Your task to perform on an android device: Open Google Chrome and open the bookmarks view Image 0: 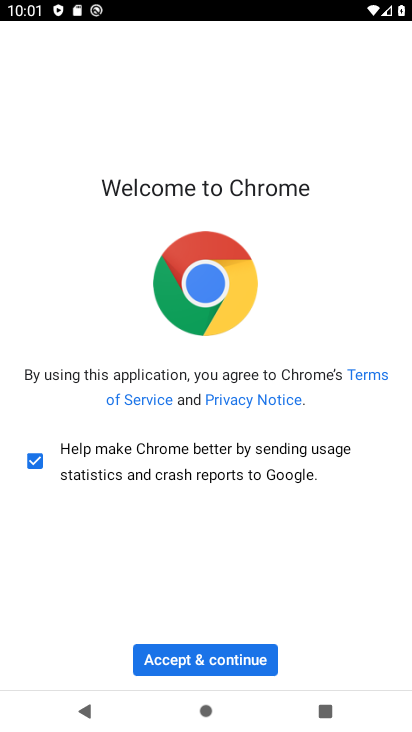
Step 0: click (211, 649)
Your task to perform on an android device: Open Google Chrome and open the bookmarks view Image 1: 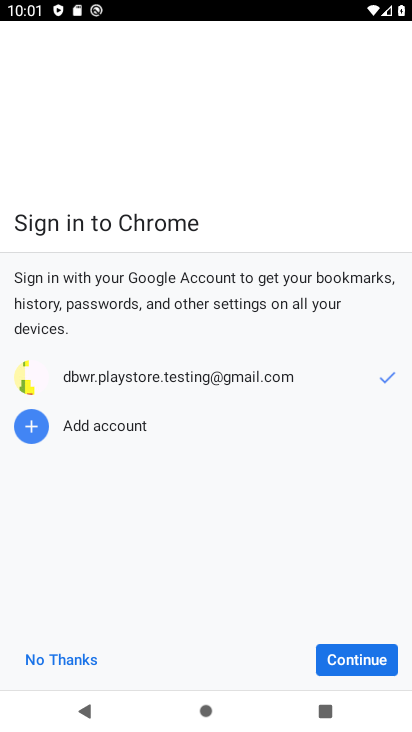
Step 1: click (361, 654)
Your task to perform on an android device: Open Google Chrome and open the bookmarks view Image 2: 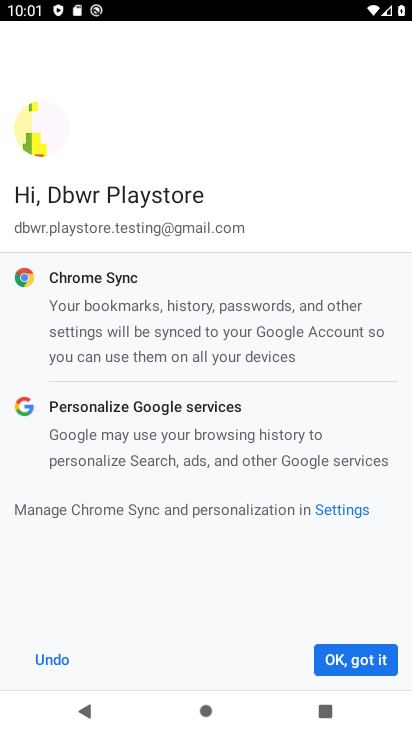
Step 2: click (328, 668)
Your task to perform on an android device: Open Google Chrome and open the bookmarks view Image 3: 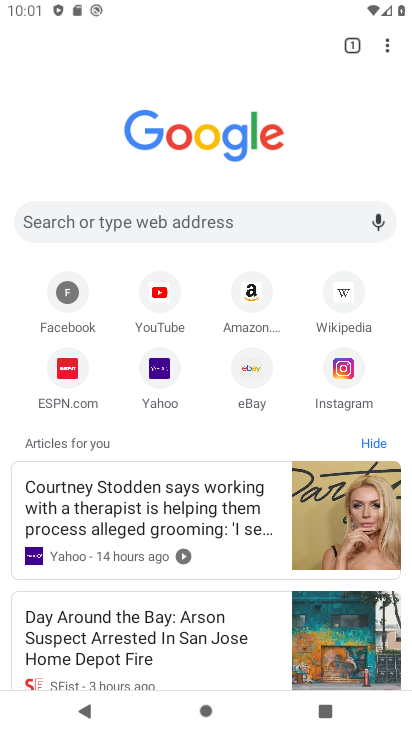
Step 3: click (385, 39)
Your task to perform on an android device: Open Google Chrome and open the bookmarks view Image 4: 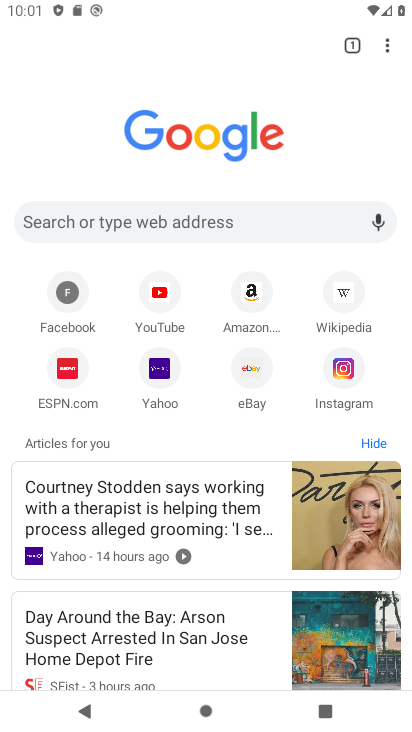
Step 4: click (385, 40)
Your task to perform on an android device: Open Google Chrome and open the bookmarks view Image 5: 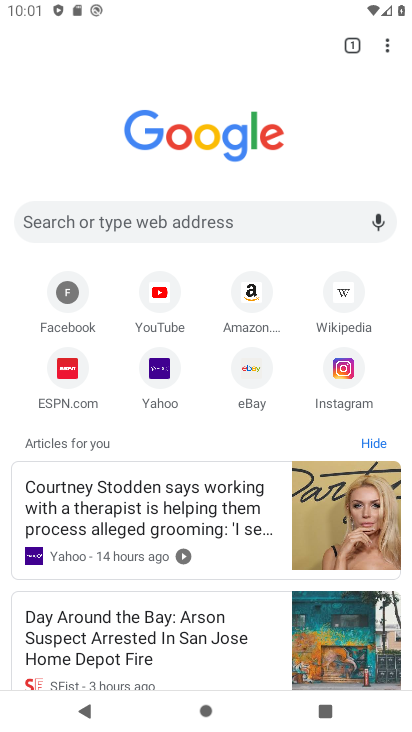
Step 5: click (385, 44)
Your task to perform on an android device: Open Google Chrome and open the bookmarks view Image 6: 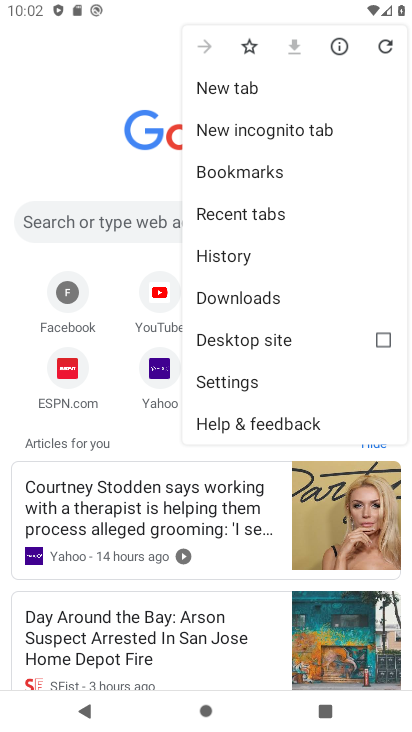
Step 6: click (278, 169)
Your task to perform on an android device: Open Google Chrome and open the bookmarks view Image 7: 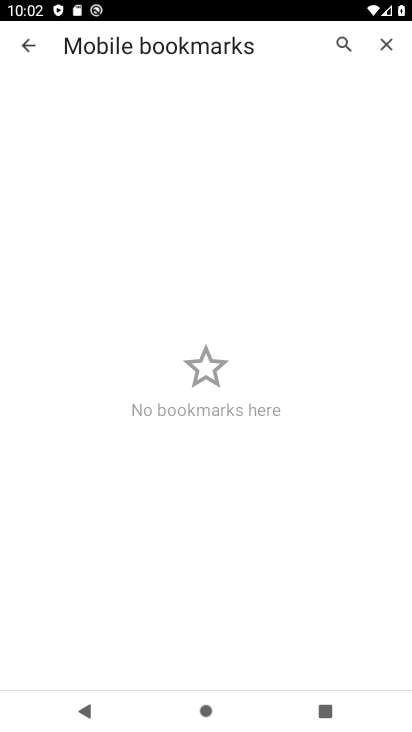
Step 7: task complete